Your task to perform on an android device: open a bookmark in the chrome app Image 0: 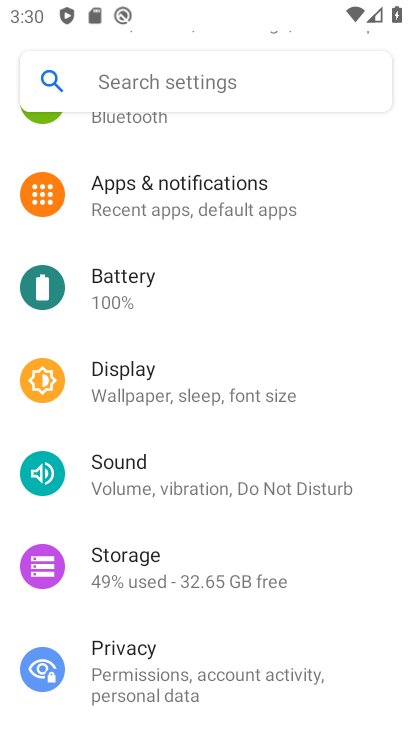
Step 0: press home button
Your task to perform on an android device: open a bookmark in the chrome app Image 1: 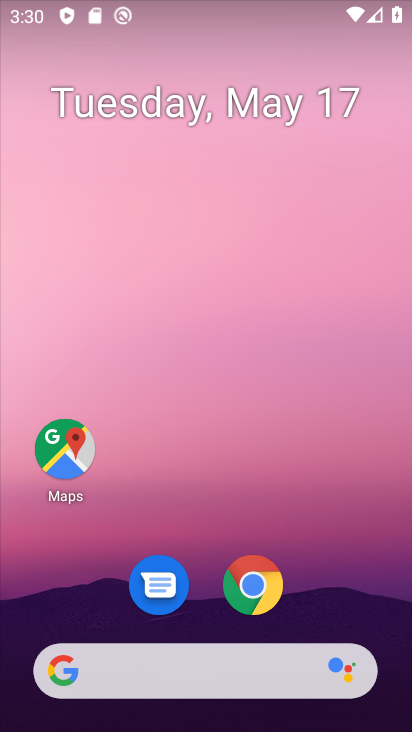
Step 1: click (266, 592)
Your task to perform on an android device: open a bookmark in the chrome app Image 2: 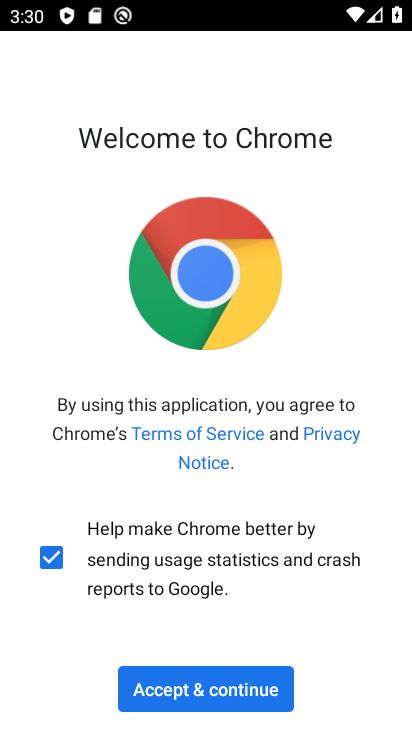
Step 2: click (261, 686)
Your task to perform on an android device: open a bookmark in the chrome app Image 3: 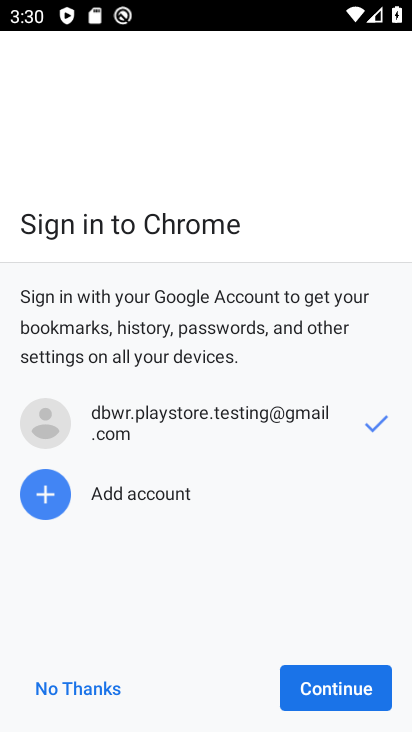
Step 3: click (305, 686)
Your task to perform on an android device: open a bookmark in the chrome app Image 4: 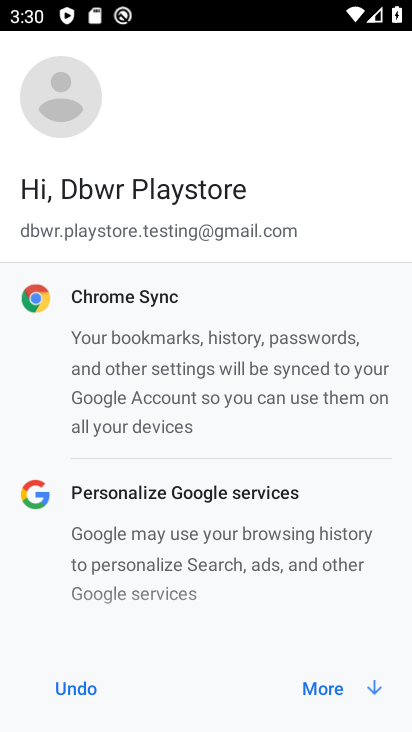
Step 4: click (305, 686)
Your task to perform on an android device: open a bookmark in the chrome app Image 5: 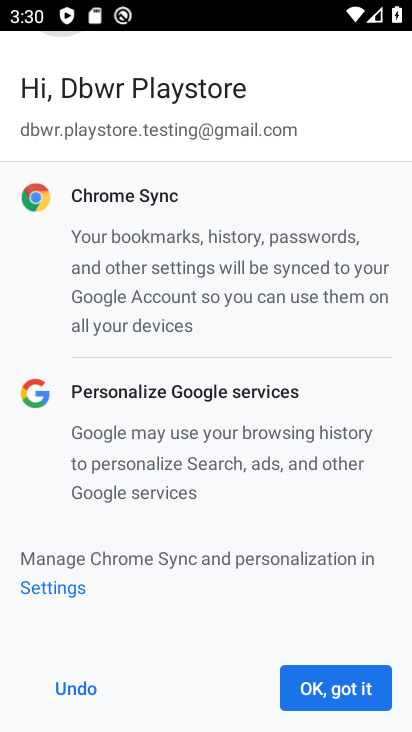
Step 5: click (305, 686)
Your task to perform on an android device: open a bookmark in the chrome app Image 6: 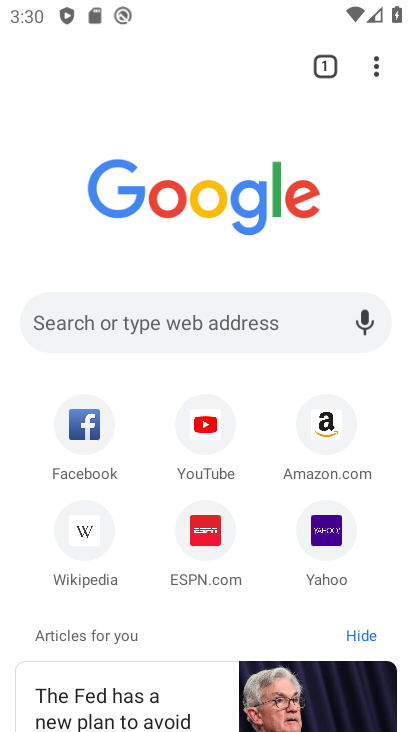
Step 6: click (371, 64)
Your task to perform on an android device: open a bookmark in the chrome app Image 7: 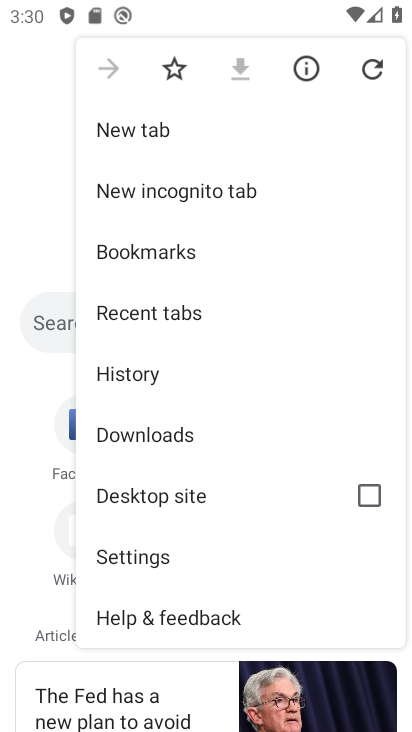
Step 7: click (202, 245)
Your task to perform on an android device: open a bookmark in the chrome app Image 8: 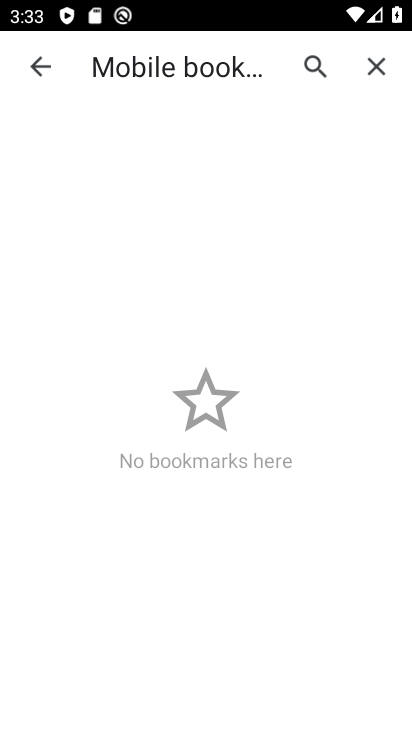
Step 8: task complete